Your task to perform on an android device: Open the Play Movies app and select the watchlist tab. Image 0: 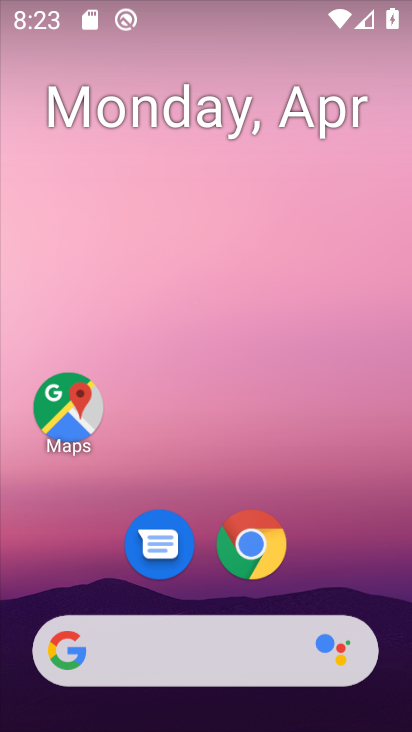
Step 0: drag from (203, 545) to (200, 27)
Your task to perform on an android device: Open the Play Movies app and select the watchlist tab. Image 1: 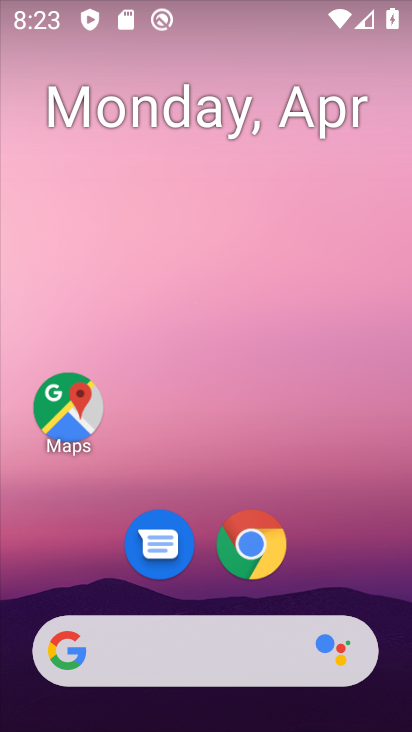
Step 1: drag from (212, 597) to (276, 48)
Your task to perform on an android device: Open the Play Movies app and select the watchlist tab. Image 2: 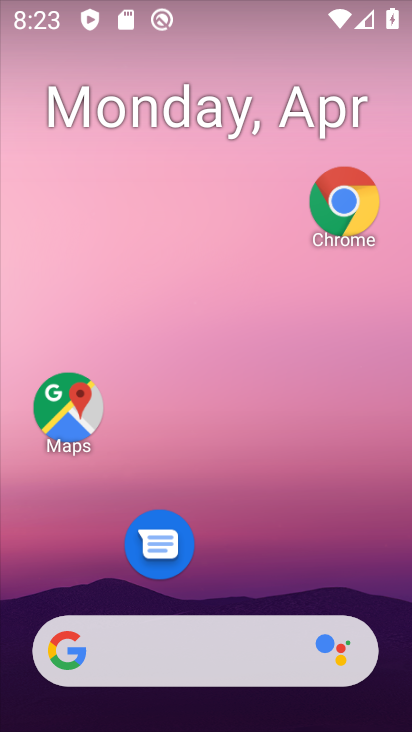
Step 2: drag from (221, 587) to (298, 24)
Your task to perform on an android device: Open the Play Movies app and select the watchlist tab. Image 3: 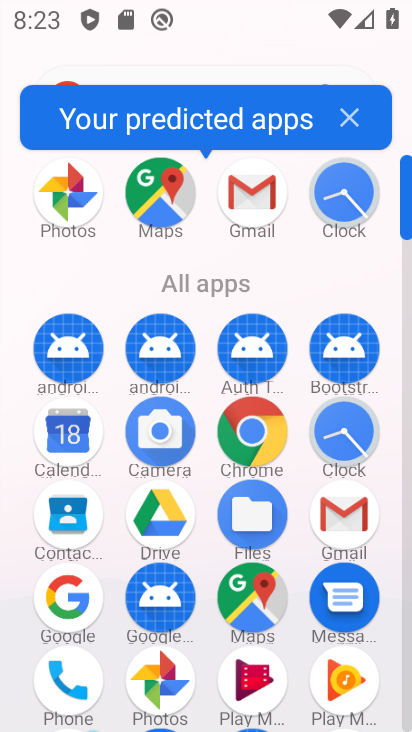
Step 3: click (238, 691)
Your task to perform on an android device: Open the Play Movies app and select the watchlist tab. Image 4: 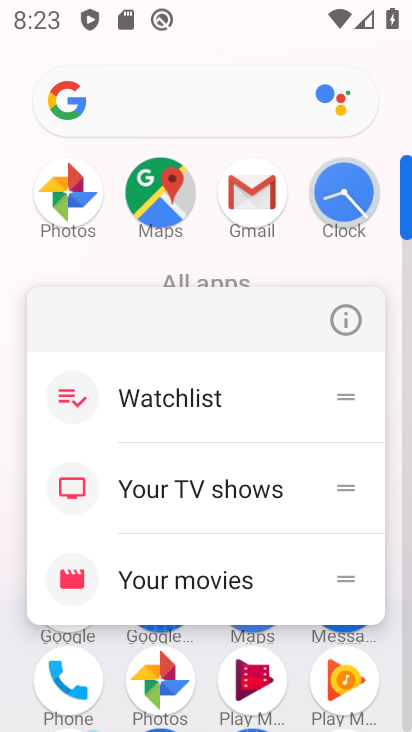
Step 4: click (253, 665)
Your task to perform on an android device: Open the Play Movies app and select the watchlist tab. Image 5: 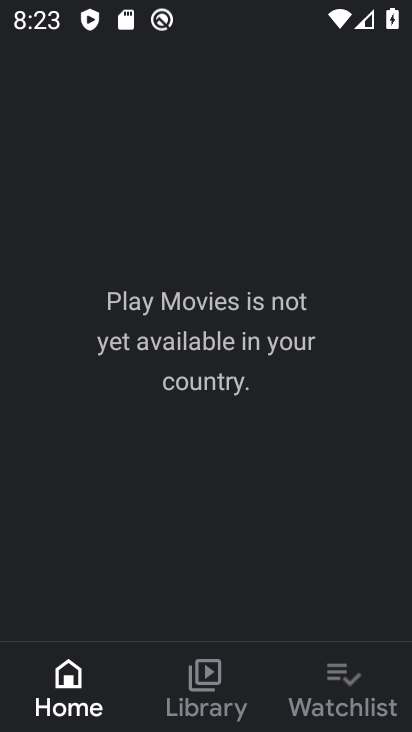
Step 5: click (334, 679)
Your task to perform on an android device: Open the Play Movies app and select the watchlist tab. Image 6: 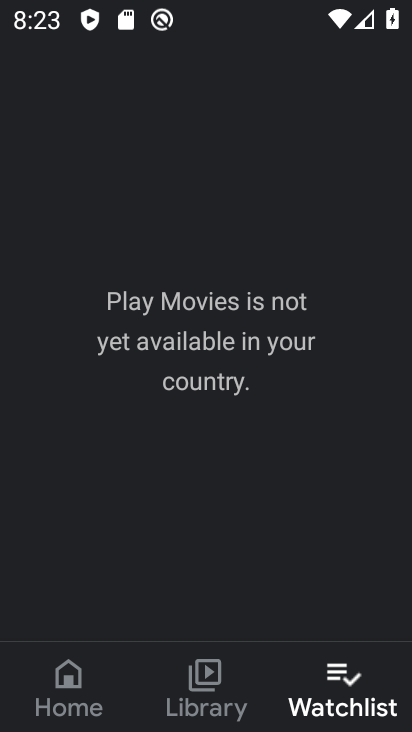
Step 6: click (336, 670)
Your task to perform on an android device: Open the Play Movies app and select the watchlist tab. Image 7: 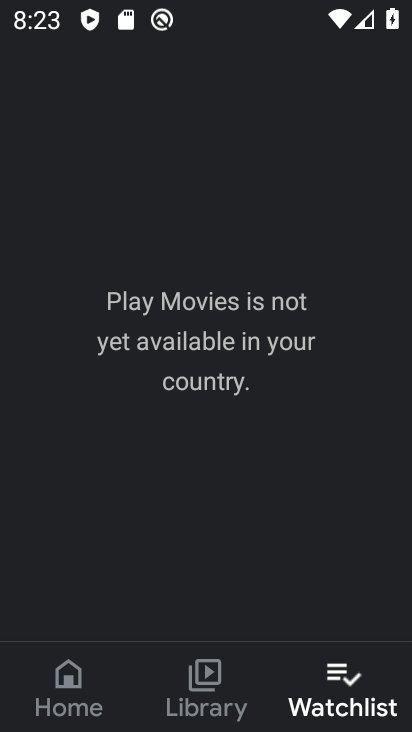
Step 7: task complete